Your task to perform on an android device: change alarm snooze length Image 0: 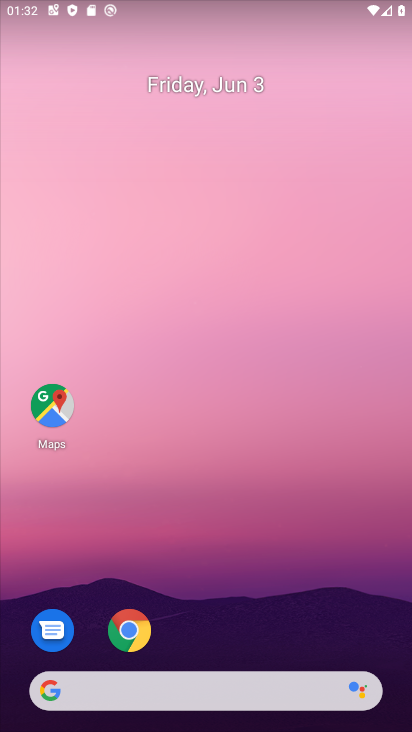
Step 0: drag from (265, 631) to (214, 67)
Your task to perform on an android device: change alarm snooze length Image 1: 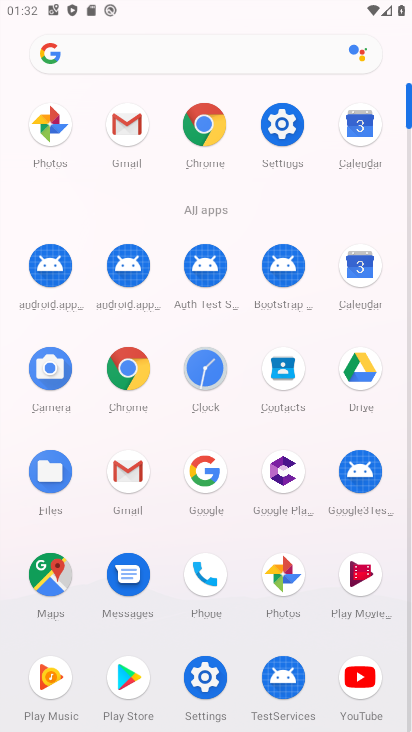
Step 1: click (204, 372)
Your task to perform on an android device: change alarm snooze length Image 2: 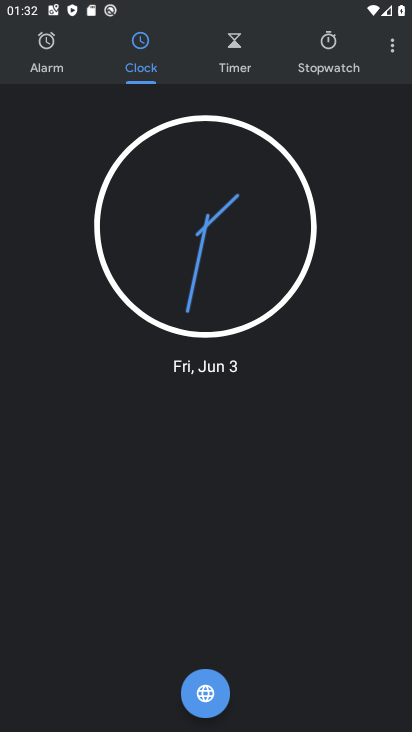
Step 2: click (394, 61)
Your task to perform on an android device: change alarm snooze length Image 3: 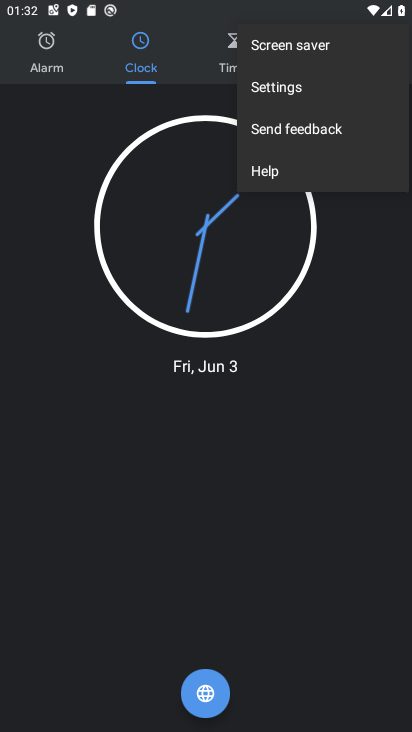
Step 3: click (321, 81)
Your task to perform on an android device: change alarm snooze length Image 4: 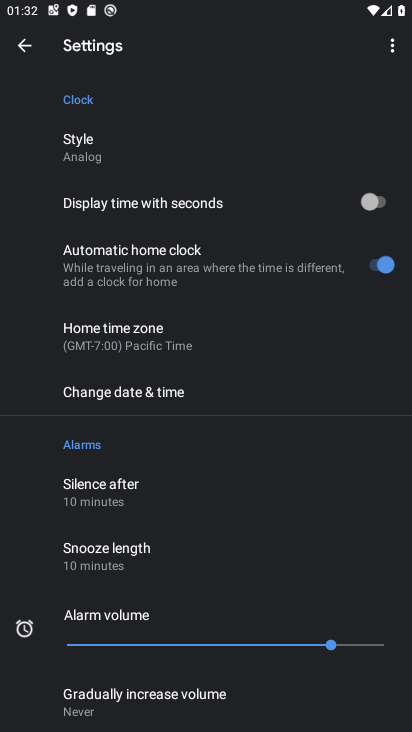
Step 4: click (190, 562)
Your task to perform on an android device: change alarm snooze length Image 5: 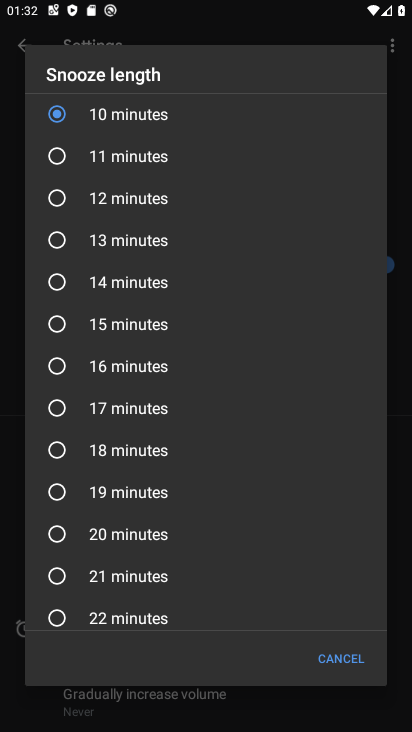
Step 5: click (152, 500)
Your task to perform on an android device: change alarm snooze length Image 6: 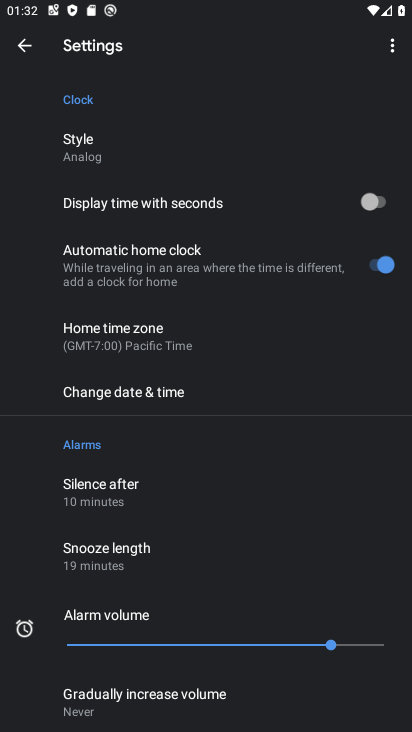
Step 6: task complete